Your task to perform on an android device: turn on notifications settings in the gmail app Image 0: 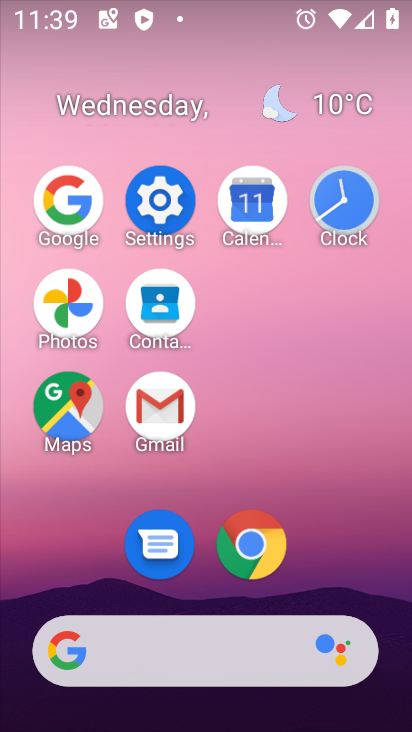
Step 0: click (176, 409)
Your task to perform on an android device: turn on notifications settings in the gmail app Image 1: 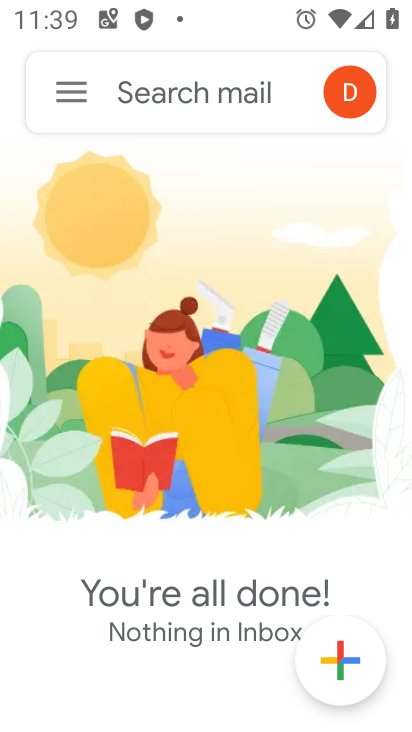
Step 1: click (83, 103)
Your task to perform on an android device: turn on notifications settings in the gmail app Image 2: 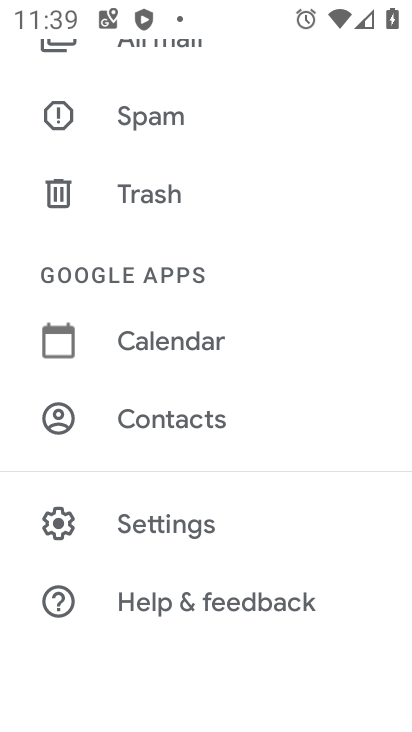
Step 2: click (207, 525)
Your task to perform on an android device: turn on notifications settings in the gmail app Image 3: 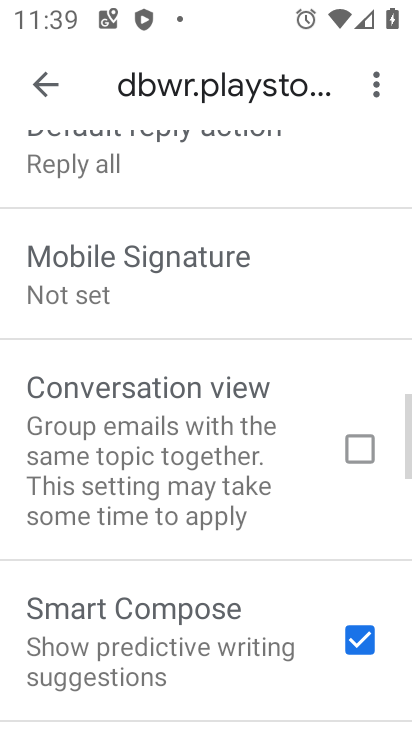
Step 3: drag from (217, 213) to (222, 583)
Your task to perform on an android device: turn on notifications settings in the gmail app Image 4: 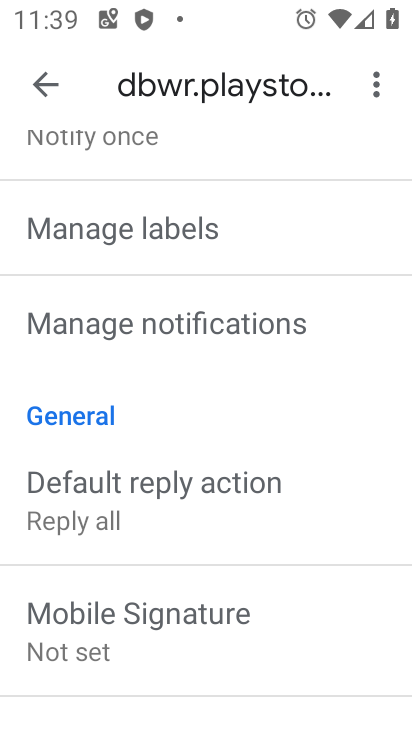
Step 4: drag from (340, 159) to (306, 617)
Your task to perform on an android device: turn on notifications settings in the gmail app Image 5: 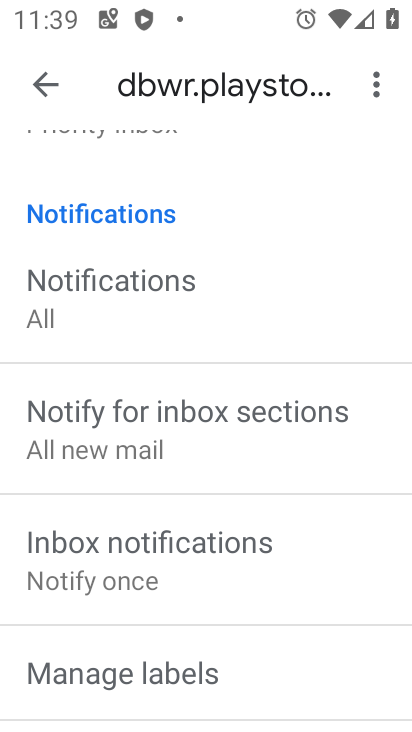
Step 5: click (149, 284)
Your task to perform on an android device: turn on notifications settings in the gmail app Image 6: 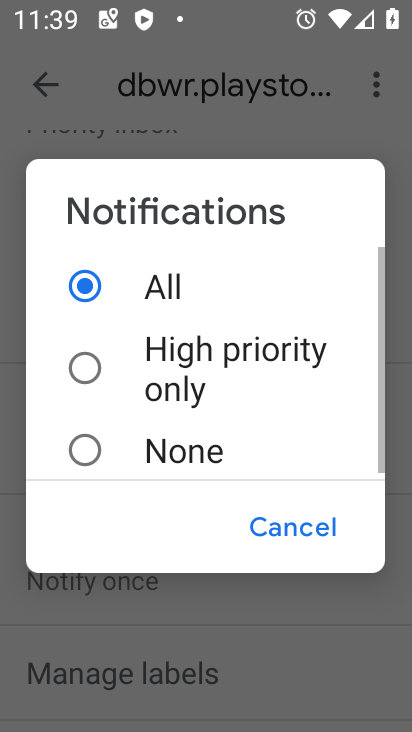
Step 6: task complete